Your task to perform on an android device: Go to settings Image 0: 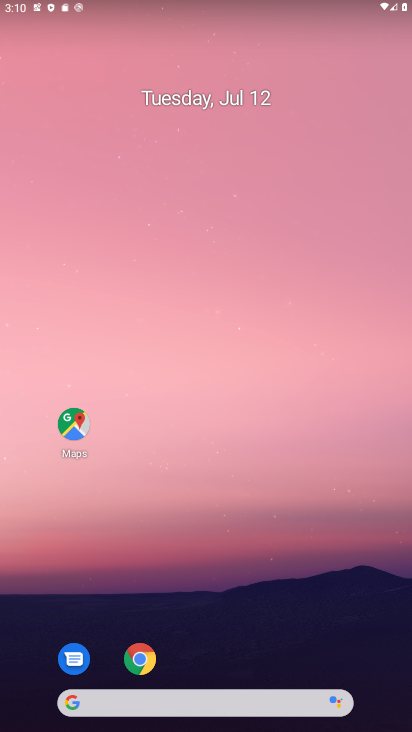
Step 0: drag from (233, 694) to (230, 79)
Your task to perform on an android device: Go to settings Image 1: 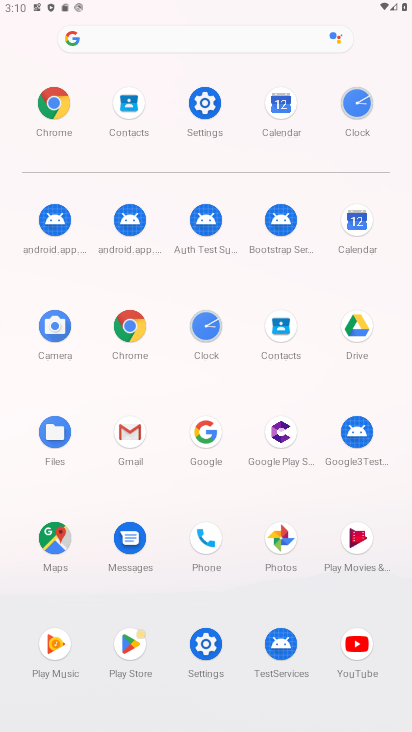
Step 1: click (203, 100)
Your task to perform on an android device: Go to settings Image 2: 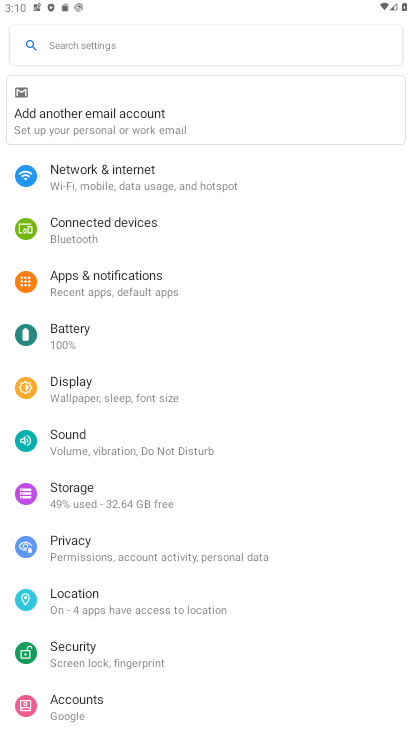
Step 2: task complete